Your task to perform on an android device: change the clock display to show seconds Image 0: 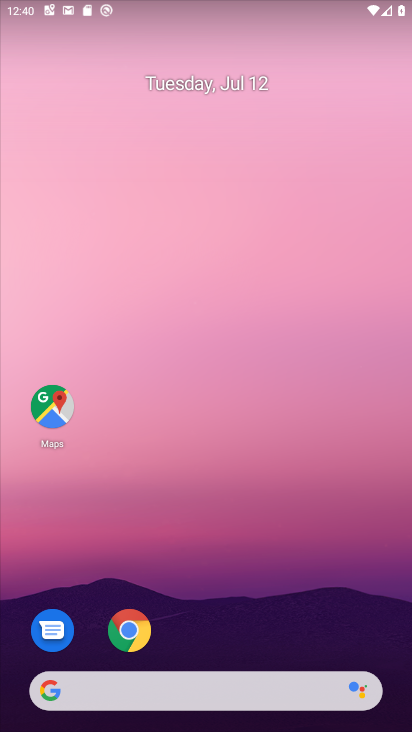
Step 0: drag from (289, 550) to (267, 236)
Your task to perform on an android device: change the clock display to show seconds Image 1: 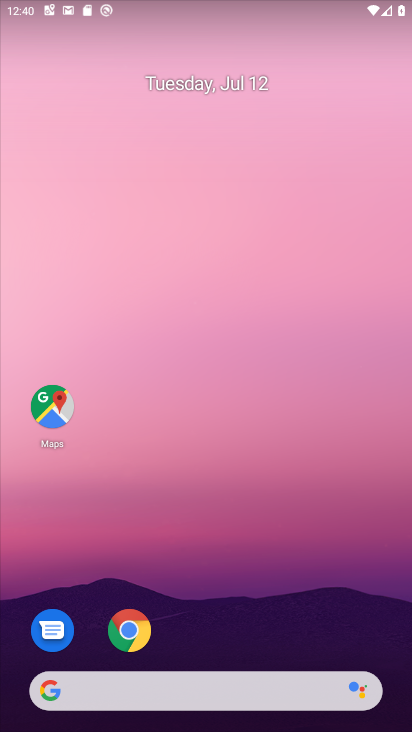
Step 1: drag from (304, 600) to (271, 293)
Your task to perform on an android device: change the clock display to show seconds Image 2: 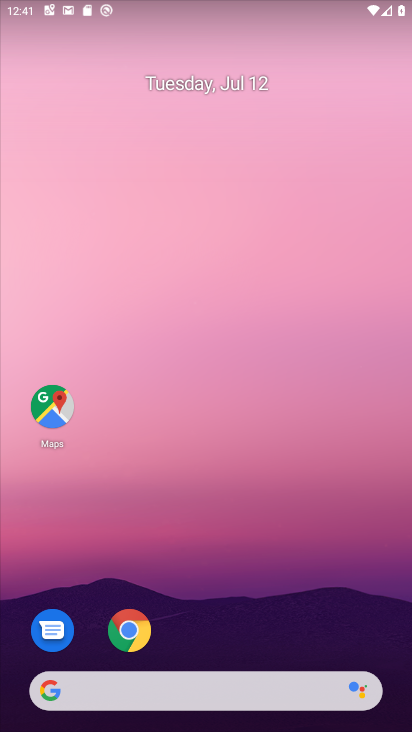
Step 2: drag from (294, 606) to (241, 228)
Your task to perform on an android device: change the clock display to show seconds Image 3: 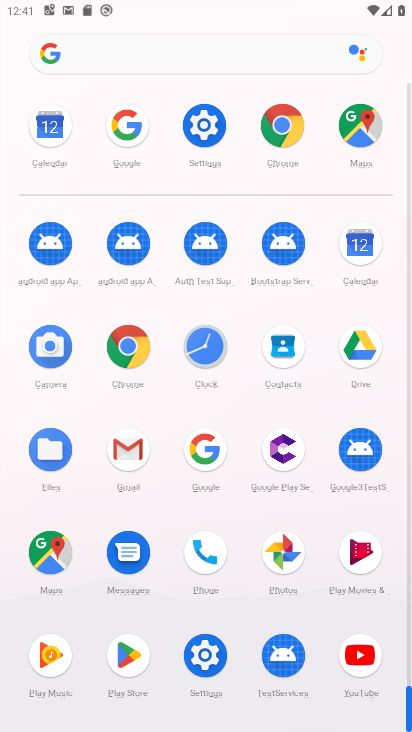
Step 3: click (208, 369)
Your task to perform on an android device: change the clock display to show seconds Image 4: 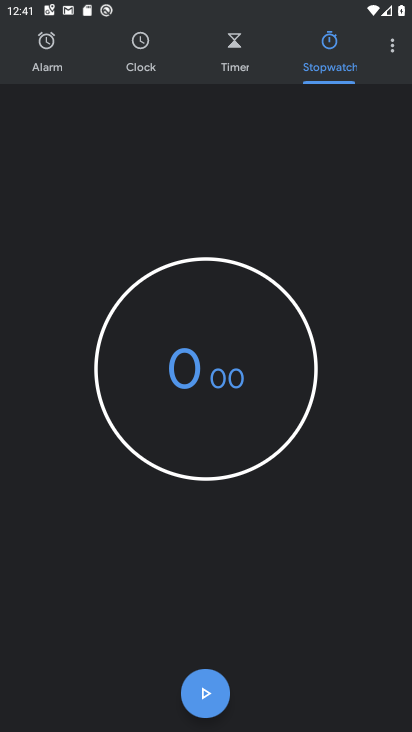
Step 4: click (392, 50)
Your task to perform on an android device: change the clock display to show seconds Image 5: 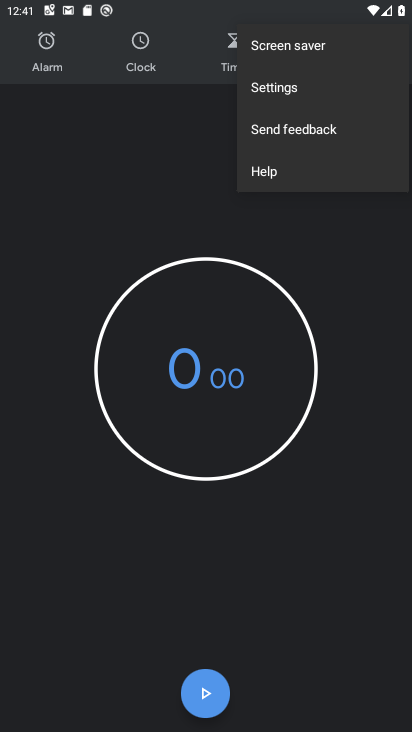
Step 5: click (278, 91)
Your task to perform on an android device: change the clock display to show seconds Image 6: 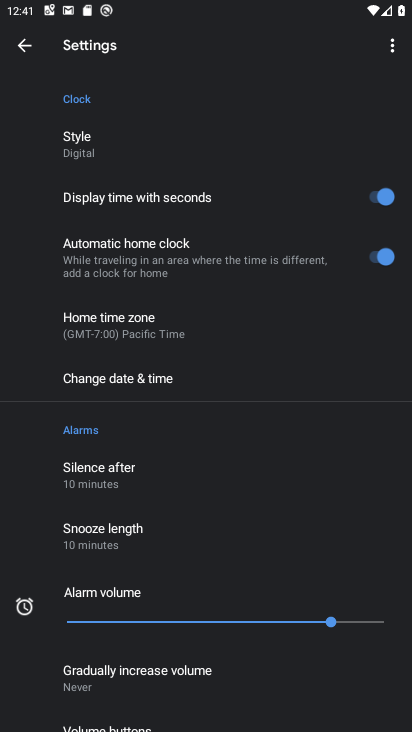
Step 6: click (279, 90)
Your task to perform on an android device: change the clock display to show seconds Image 7: 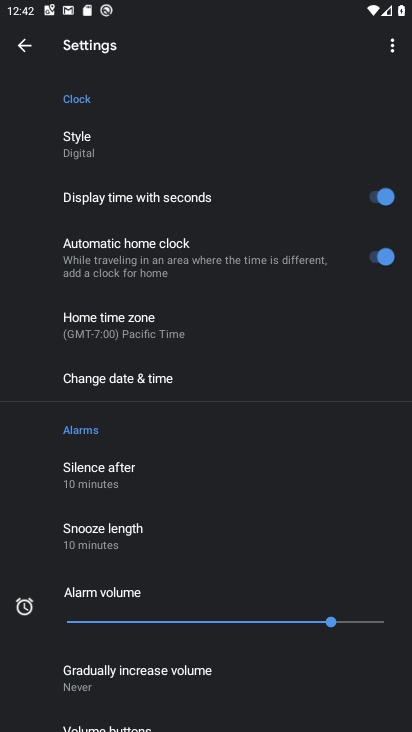
Step 7: task complete